Your task to perform on an android device: toggle wifi Image 0: 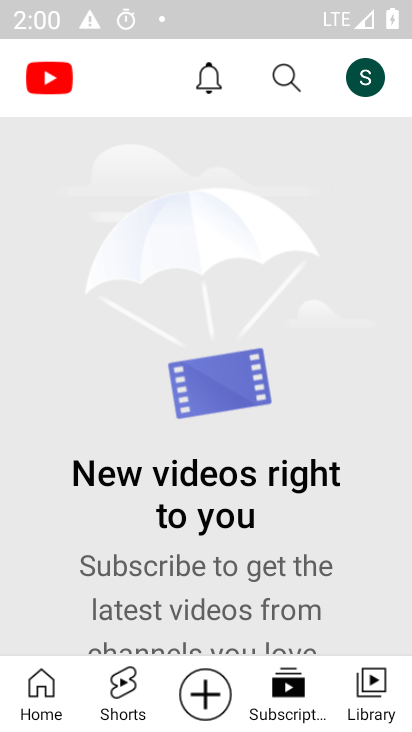
Step 0: press home button
Your task to perform on an android device: toggle wifi Image 1: 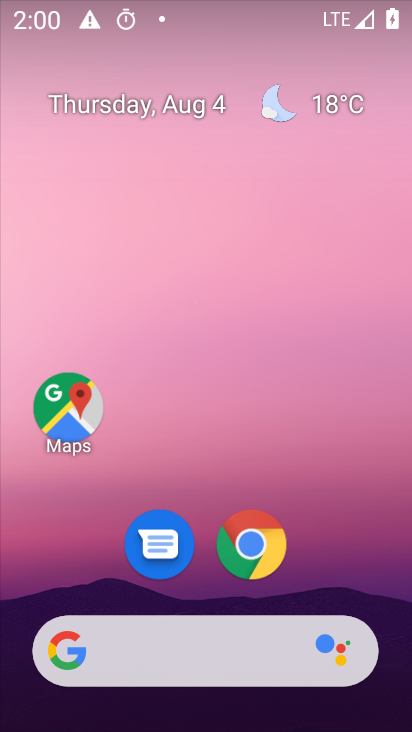
Step 1: drag from (390, 680) to (318, 96)
Your task to perform on an android device: toggle wifi Image 2: 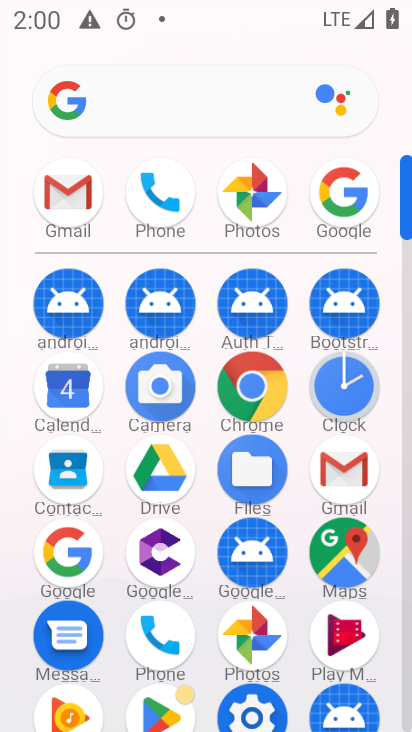
Step 2: click (248, 692)
Your task to perform on an android device: toggle wifi Image 3: 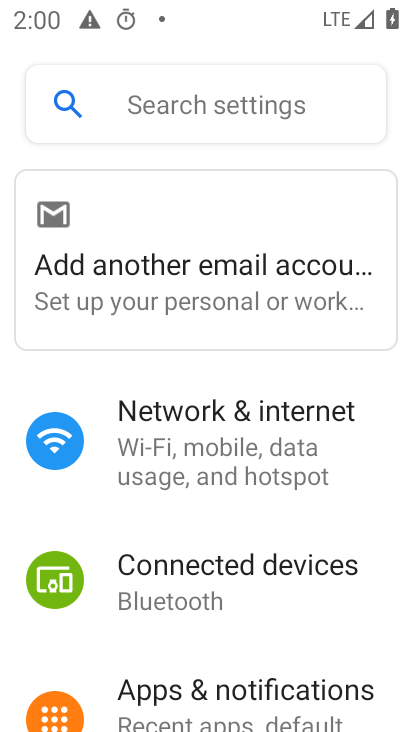
Step 3: click (197, 446)
Your task to perform on an android device: toggle wifi Image 4: 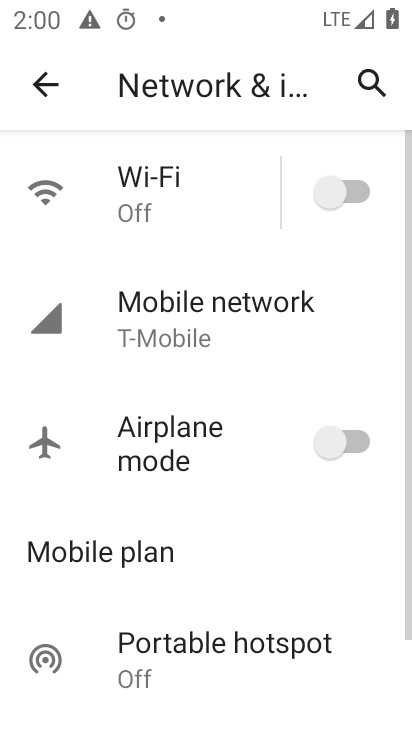
Step 4: click (345, 183)
Your task to perform on an android device: toggle wifi Image 5: 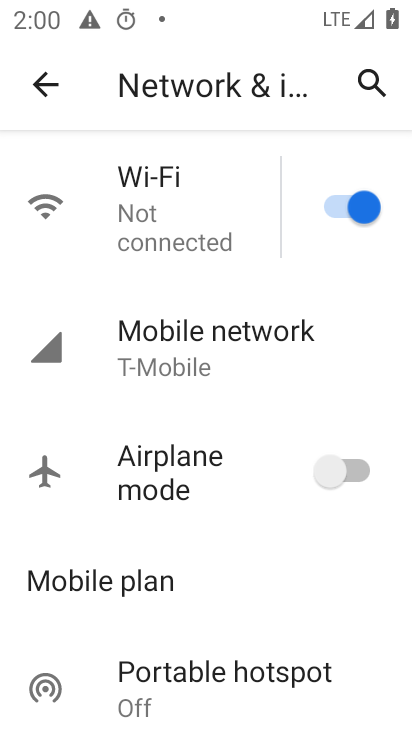
Step 5: task complete